Your task to perform on an android device: Open Google Chrome Image 0: 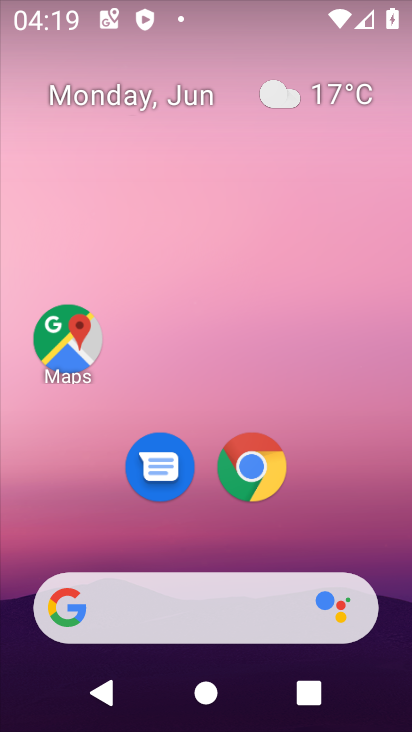
Step 0: click (256, 485)
Your task to perform on an android device: Open Google Chrome Image 1: 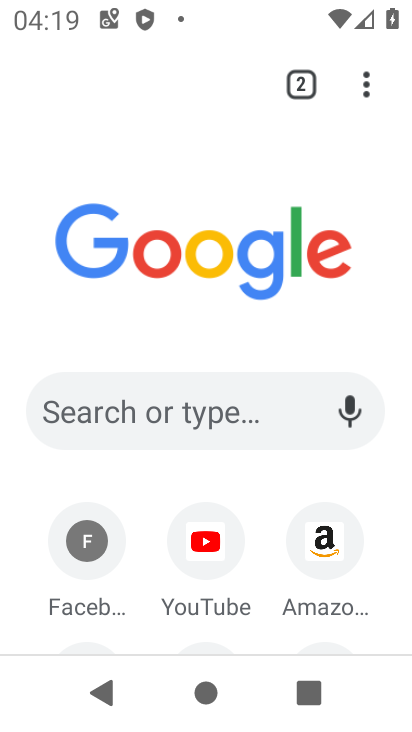
Step 1: task complete